Your task to perform on an android device: uninstall "Google Chat" Image 0: 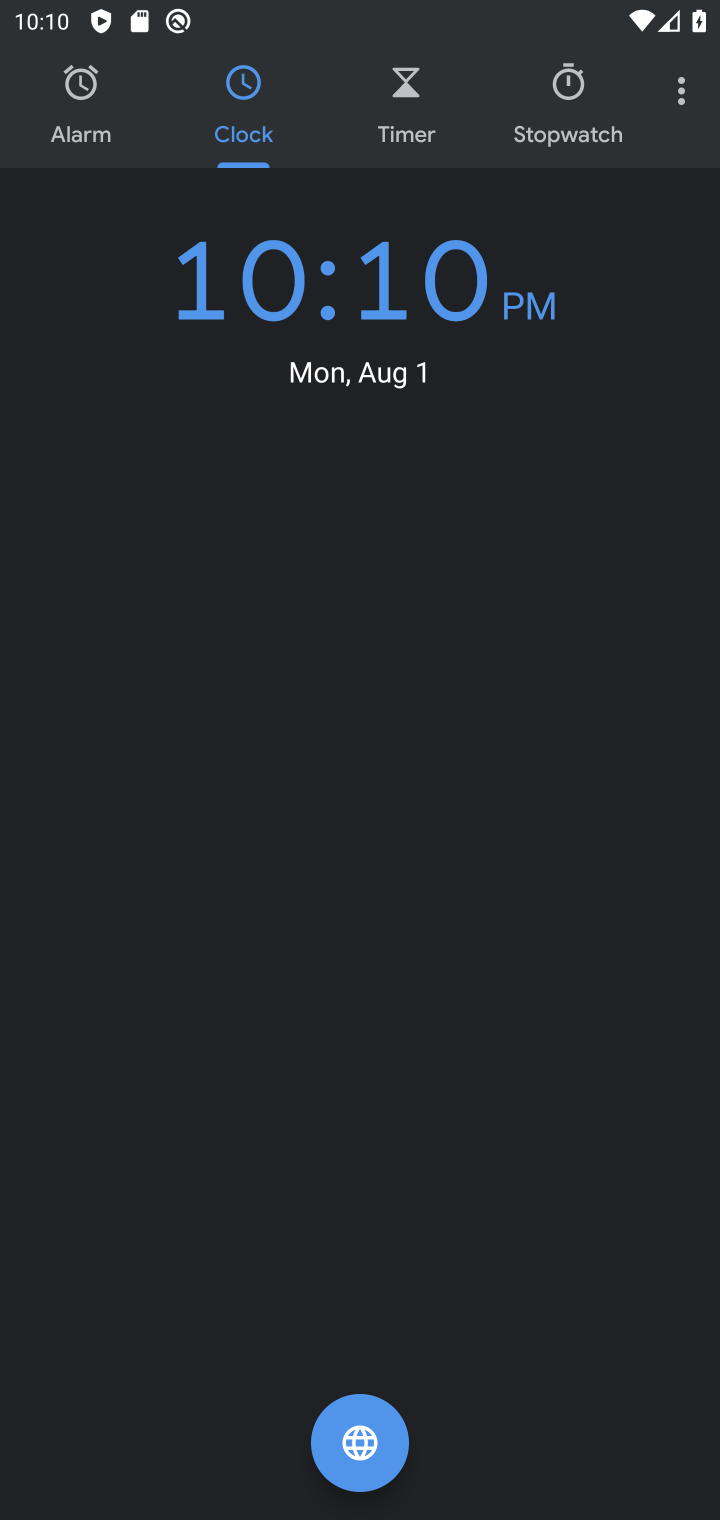
Step 0: press home button
Your task to perform on an android device: uninstall "Google Chat" Image 1: 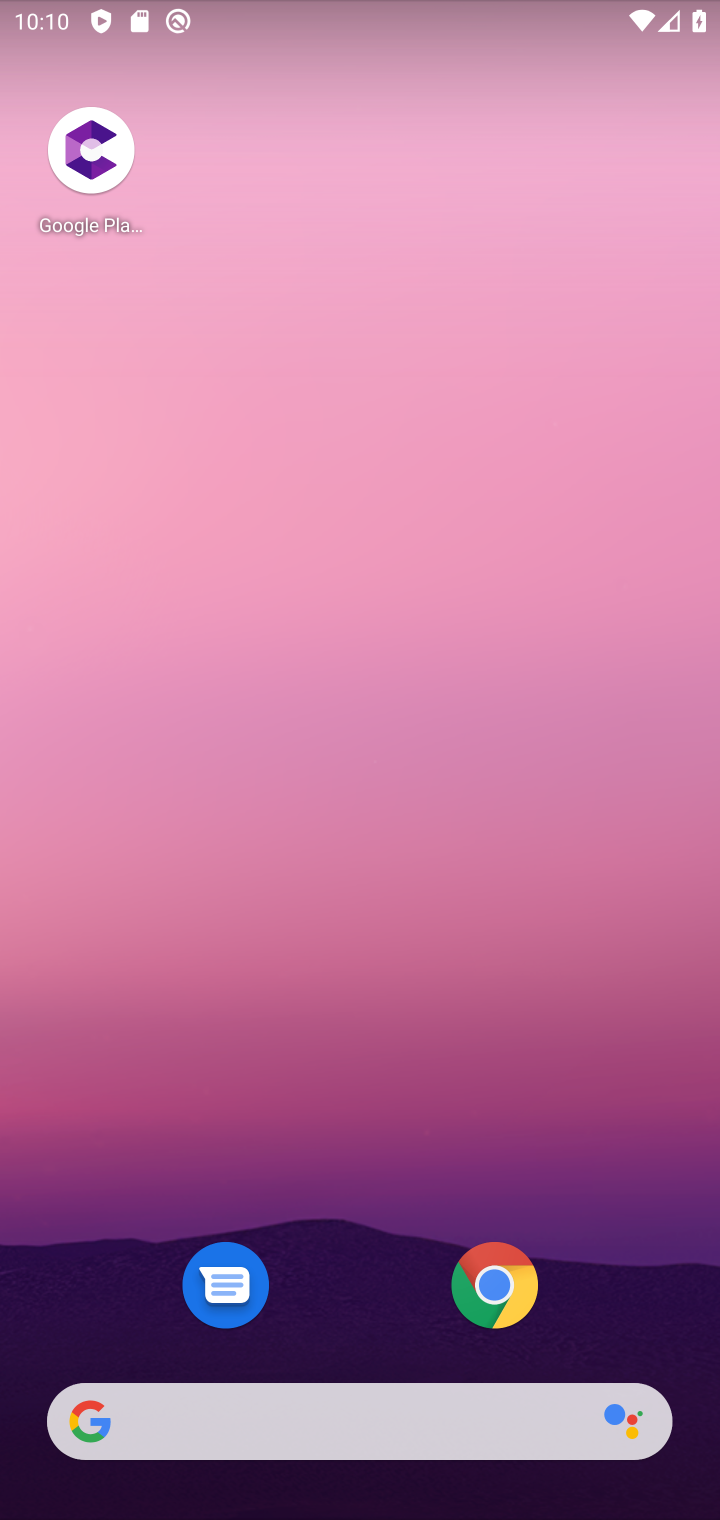
Step 1: drag from (422, 1380) to (441, 9)
Your task to perform on an android device: uninstall "Google Chat" Image 2: 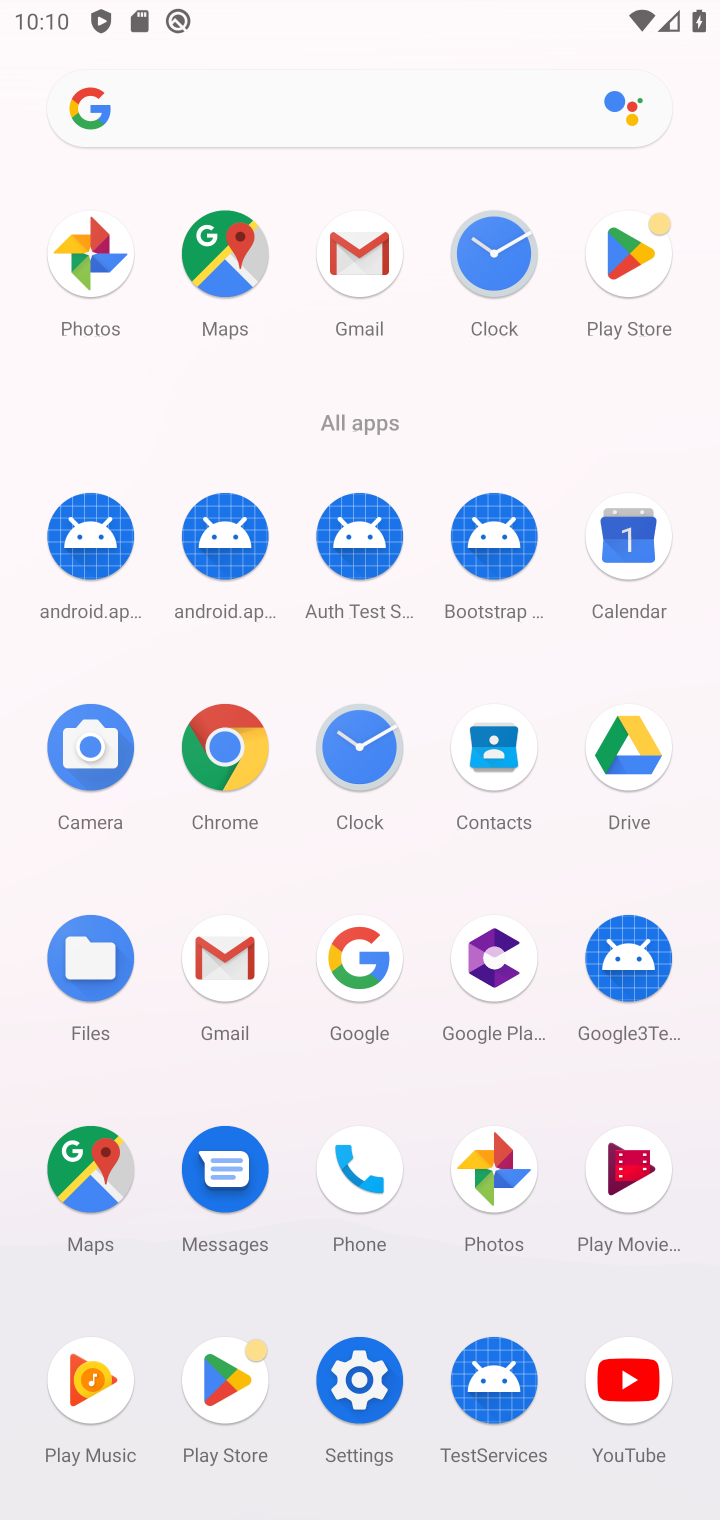
Step 2: click (625, 270)
Your task to perform on an android device: uninstall "Google Chat" Image 3: 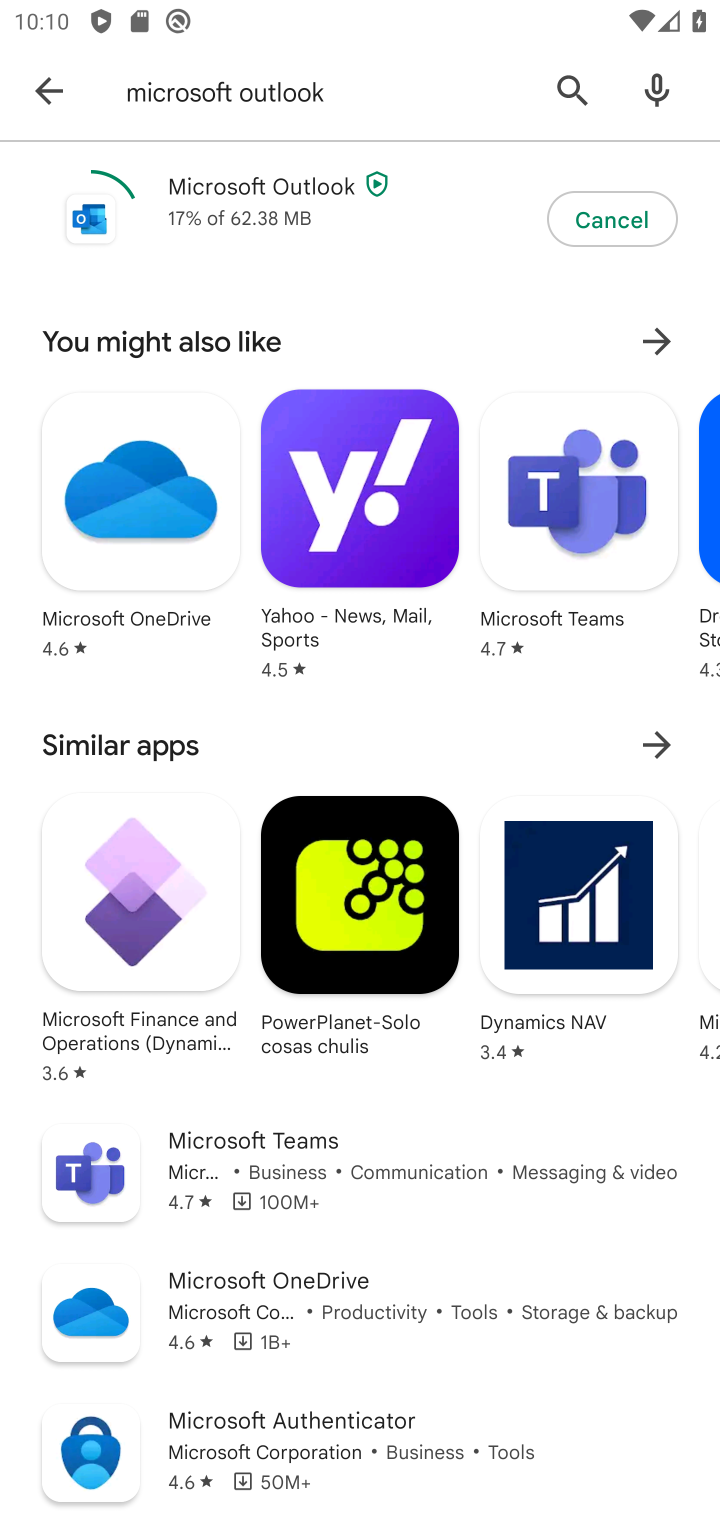
Step 3: click (32, 89)
Your task to perform on an android device: uninstall "Google Chat" Image 4: 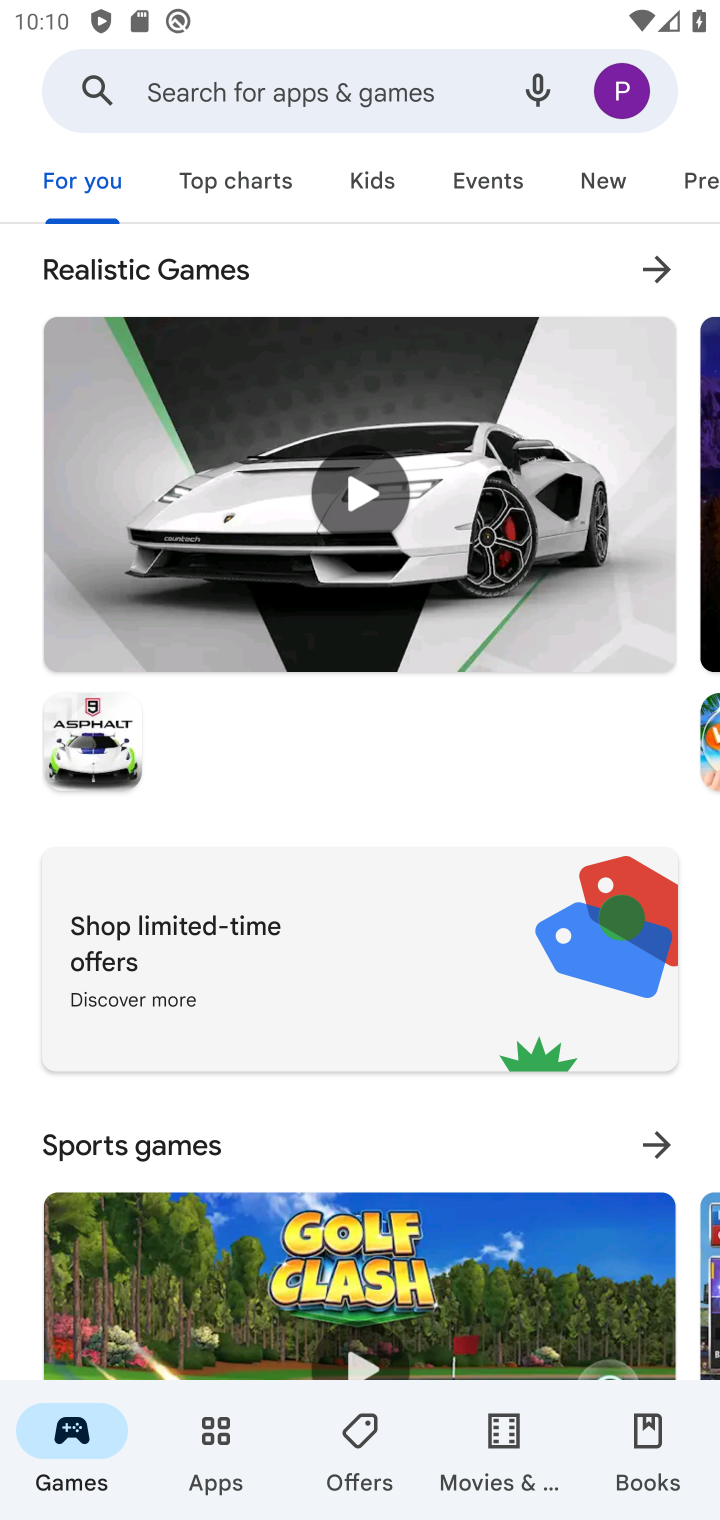
Step 4: click (227, 92)
Your task to perform on an android device: uninstall "Google Chat" Image 5: 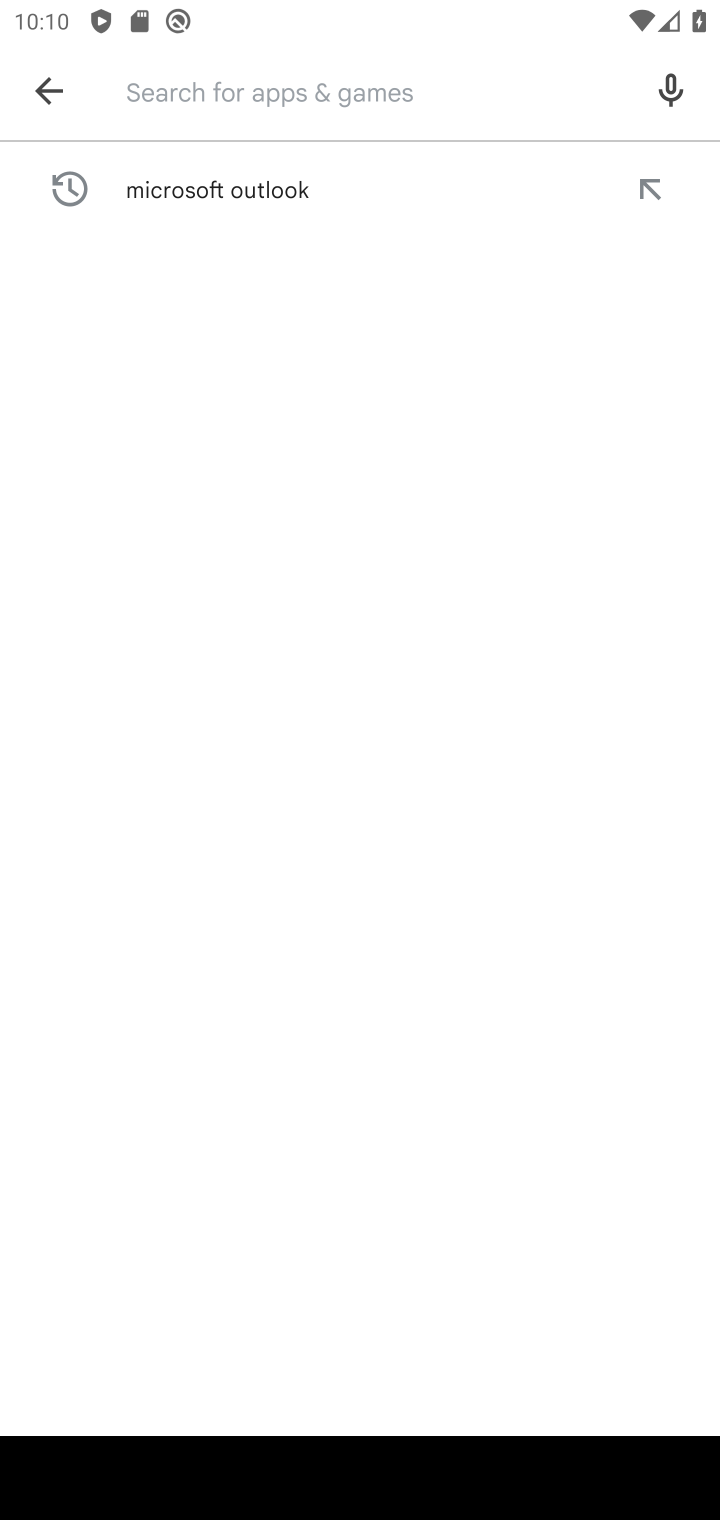
Step 5: type "Google Chat"
Your task to perform on an android device: uninstall "Google Chat" Image 6: 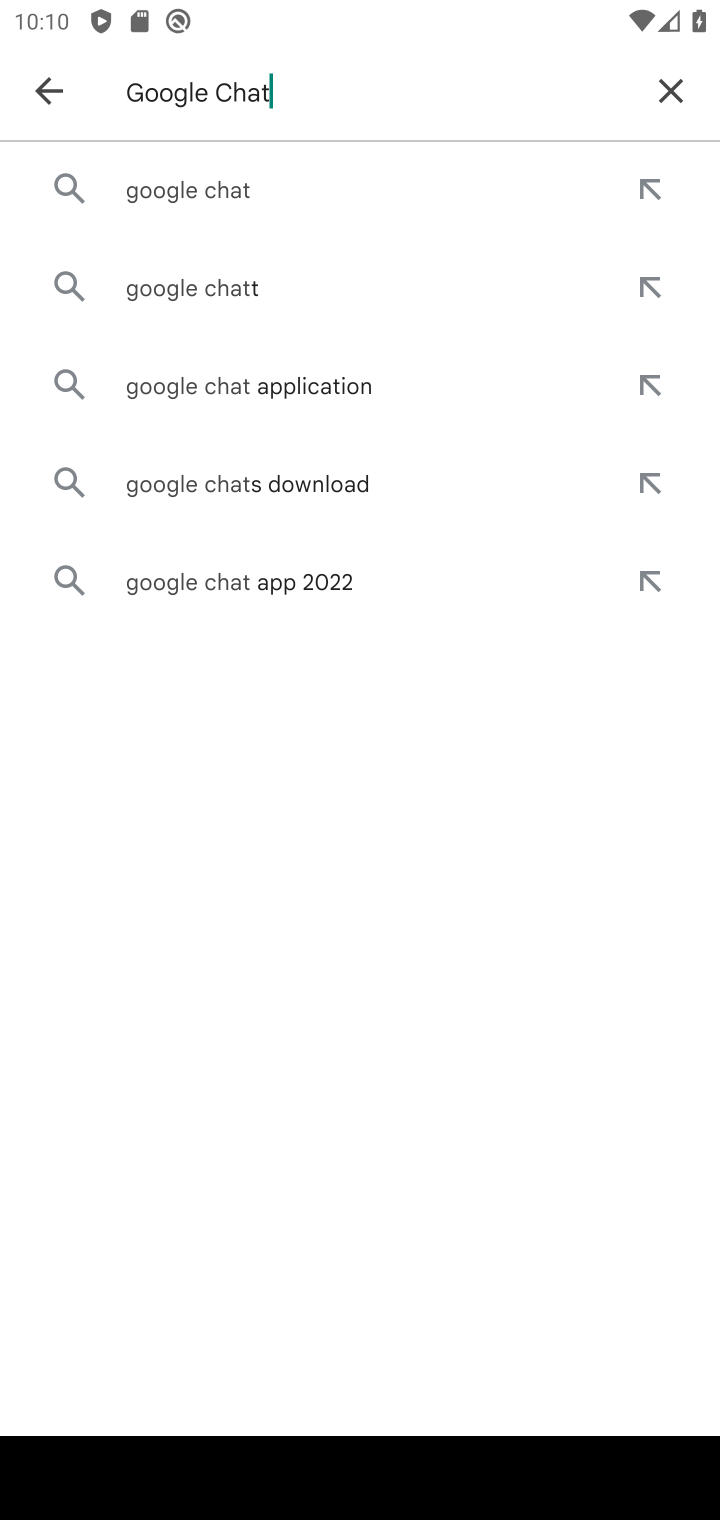
Step 6: click (281, 178)
Your task to perform on an android device: uninstall "Google Chat" Image 7: 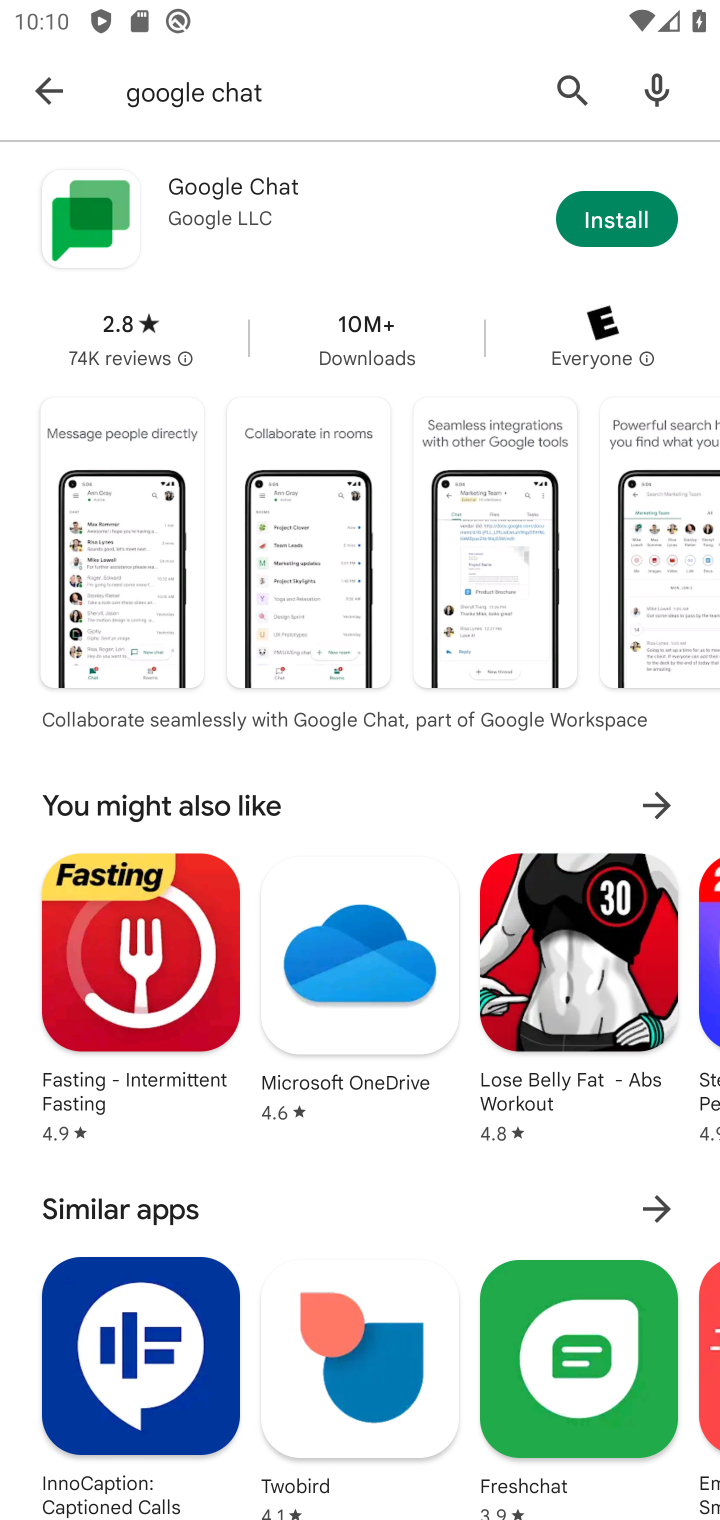
Step 7: task complete